Your task to perform on an android device: Open Chrome and go to the settings page Image 0: 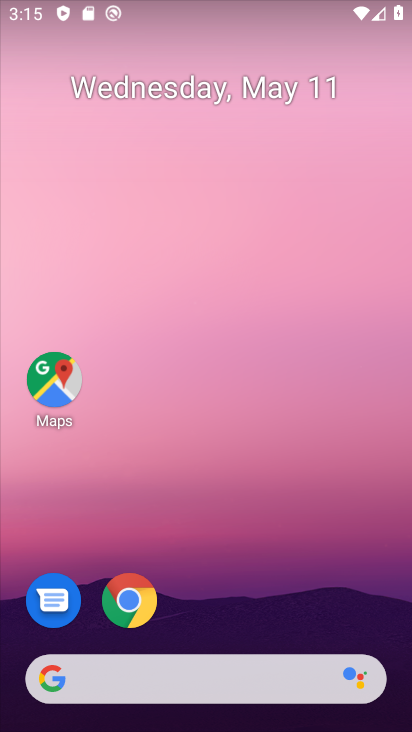
Step 0: click (134, 611)
Your task to perform on an android device: Open Chrome and go to the settings page Image 1: 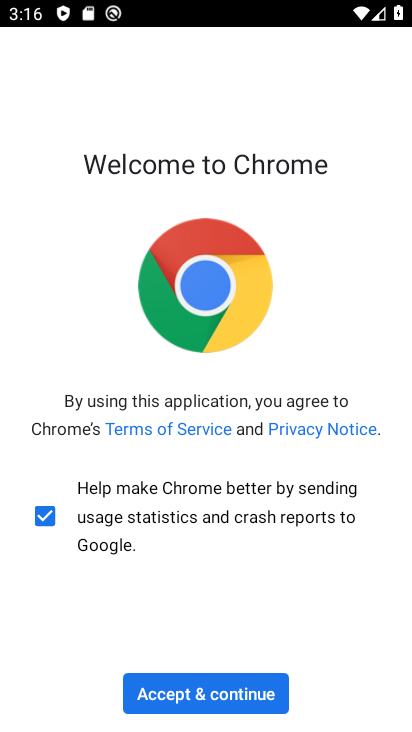
Step 1: click (192, 695)
Your task to perform on an android device: Open Chrome and go to the settings page Image 2: 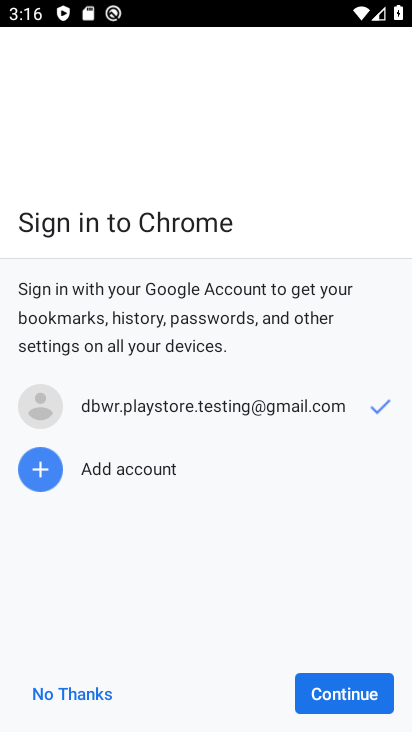
Step 2: click (85, 693)
Your task to perform on an android device: Open Chrome and go to the settings page Image 3: 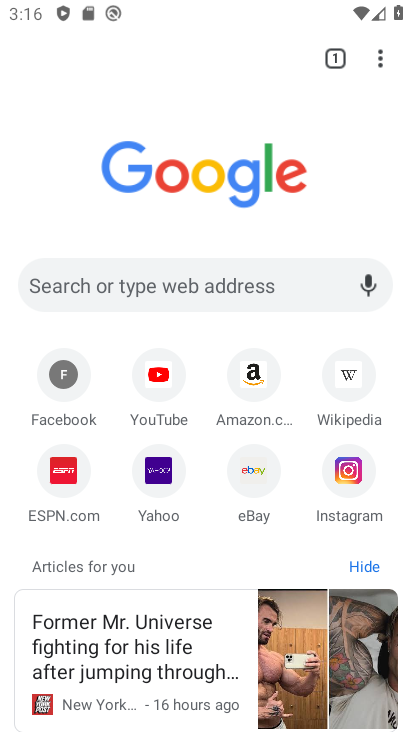
Step 3: task complete